Your task to perform on an android device: Open Yahoo.com Image 0: 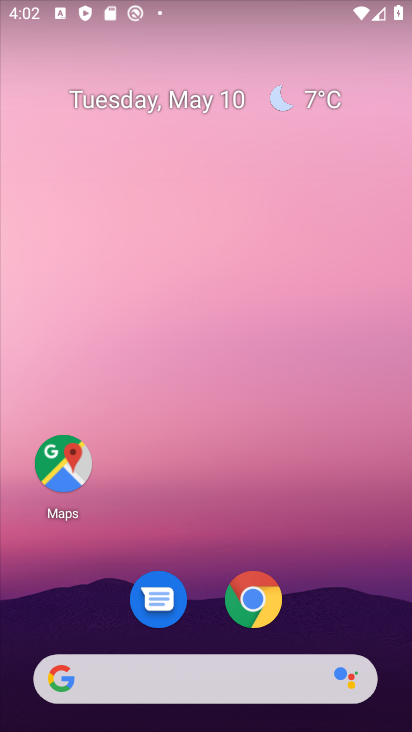
Step 0: click (271, 107)
Your task to perform on an android device: Open Yahoo.com Image 1: 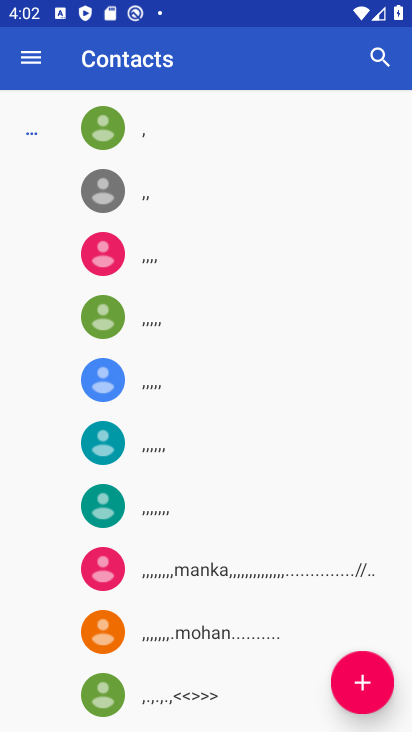
Step 1: press home button
Your task to perform on an android device: Open Yahoo.com Image 2: 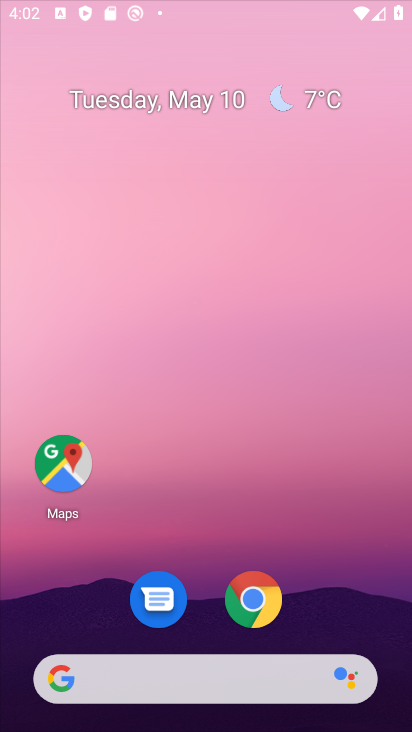
Step 2: drag from (210, 629) to (257, 220)
Your task to perform on an android device: Open Yahoo.com Image 3: 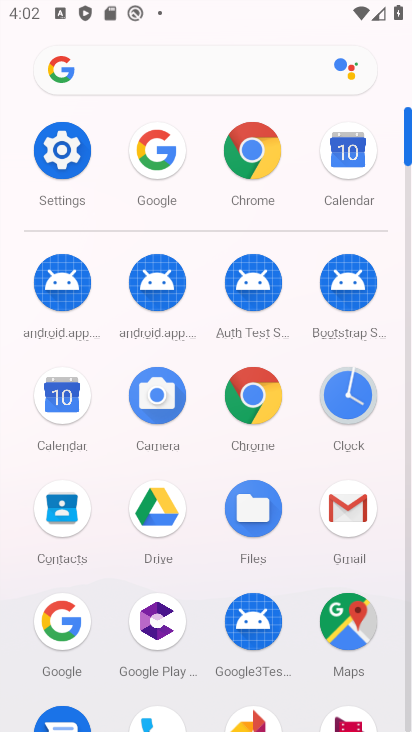
Step 3: click (252, 193)
Your task to perform on an android device: Open Yahoo.com Image 4: 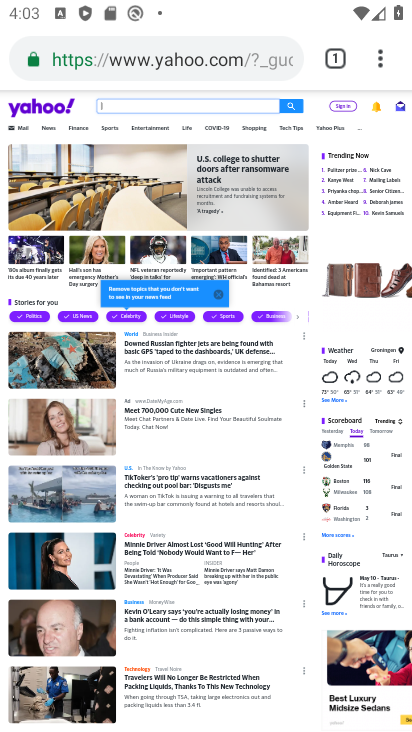
Step 4: task complete